Your task to perform on an android device: Is it going to rain today? Image 0: 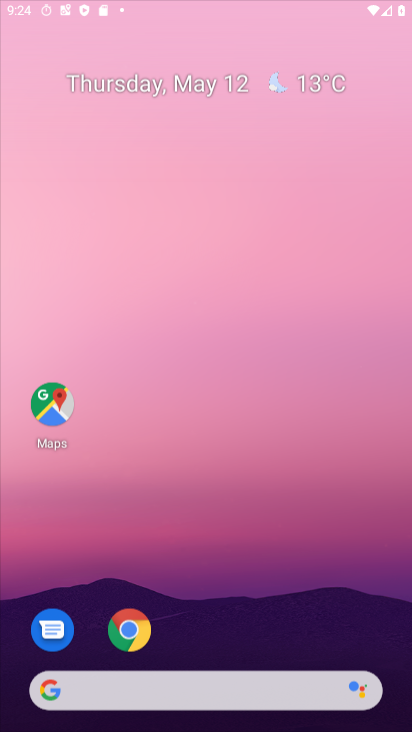
Step 0: click (273, 118)
Your task to perform on an android device: Is it going to rain today? Image 1: 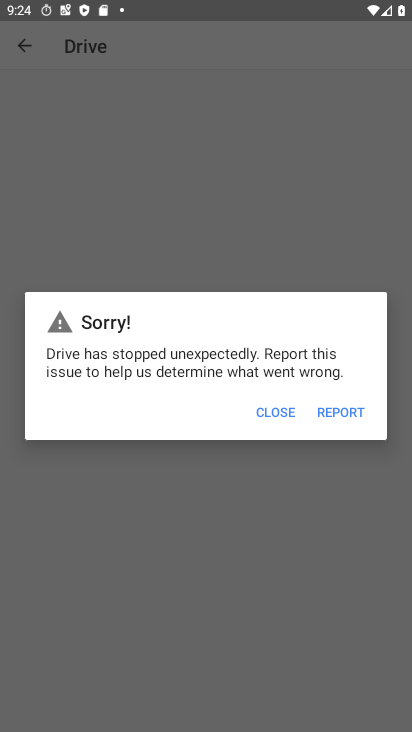
Step 1: press home button
Your task to perform on an android device: Is it going to rain today? Image 2: 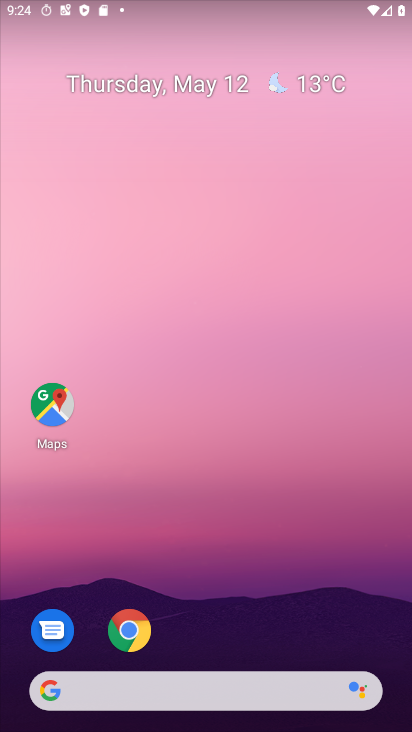
Step 2: click (326, 91)
Your task to perform on an android device: Is it going to rain today? Image 3: 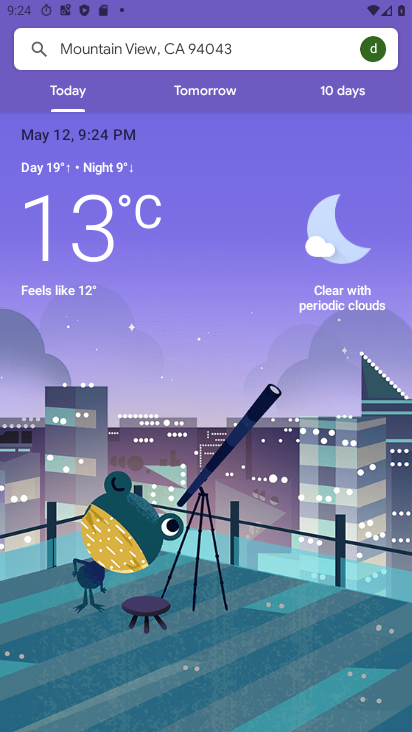
Step 3: task complete